Your task to perform on an android device: Open calendar and show me the third week of next month Image 0: 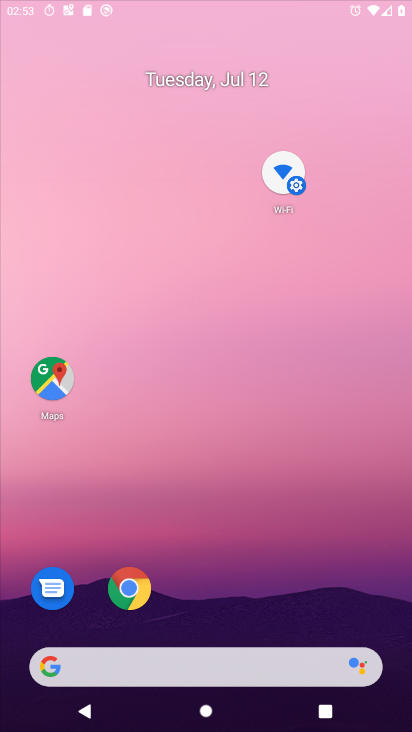
Step 0: click (301, 188)
Your task to perform on an android device: Open calendar and show me the third week of next month Image 1: 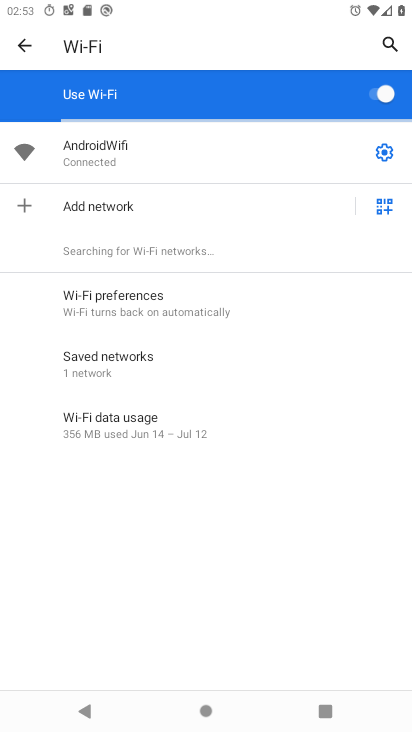
Step 1: drag from (278, 574) to (221, 309)
Your task to perform on an android device: Open calendar and show me the third week of next month Image 2: 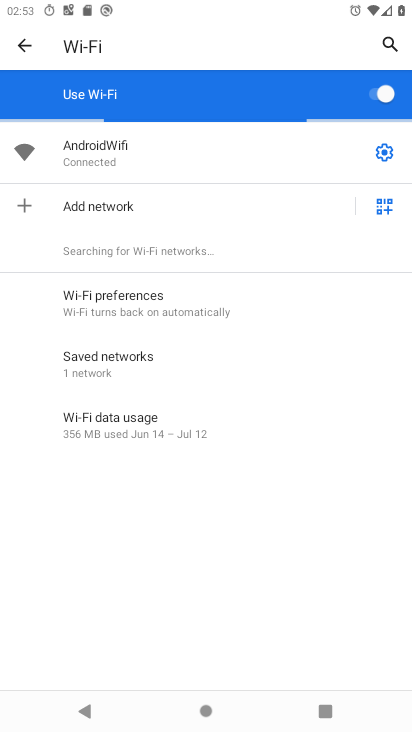
Step 2: drag from (277, 509) to (277, 320)
Your task to perform on an android device: Open calendar and show me the third week of next month Image 3: 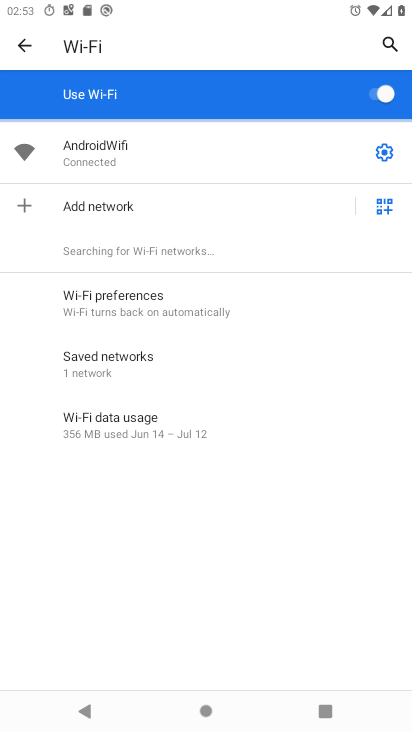
Step 3: press home button
Your task to perform on an android device: Open calendar and show me the third week of next month Image 4: 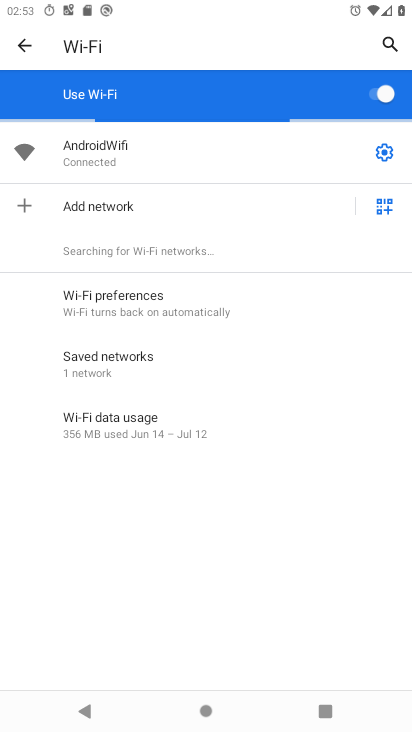
Step 4: drag from (136, 625) to (278, 120)
Your task to perform on an android device: Open calendar and show me the third week of next month Image 5: 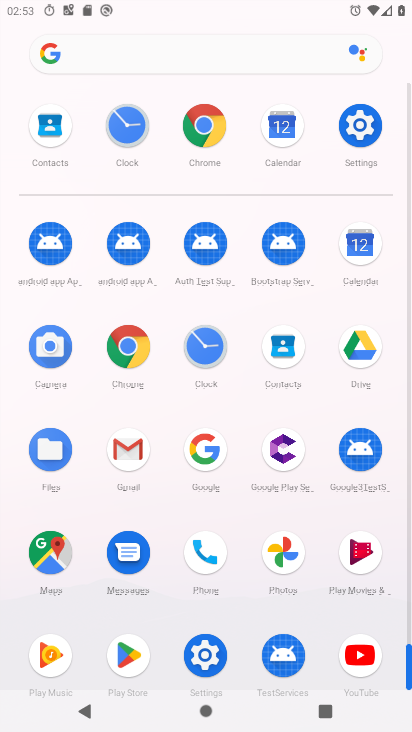
Step 5: click (359, 243)
Your task to perform on an android device: Open calendar and show me the third week of next month Image 6: 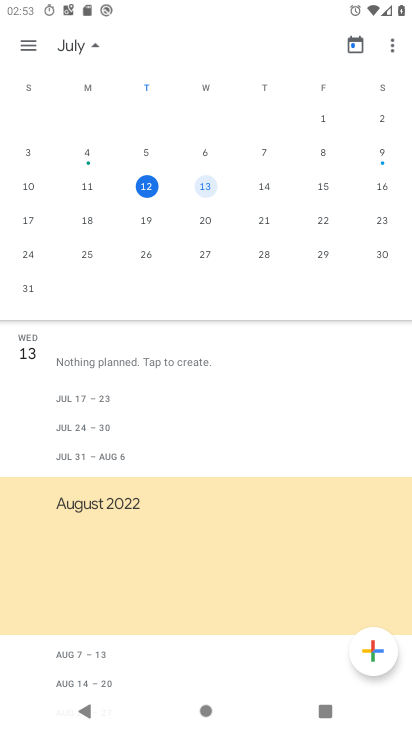
Step 6: drag from (341, 155) to (18, 216)
Your task to perform on an android device: Open calendar and show me the third week of next month Image 7: 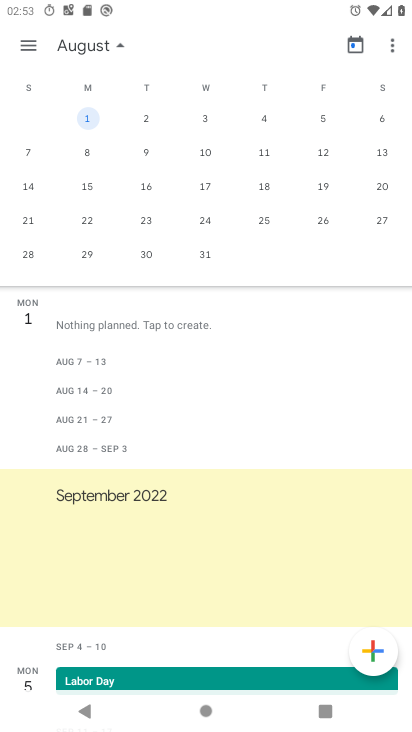
Step 7: click (324, 181)
Your task to perform on an android device: Open calendar and show me the third week of next month Image 8: 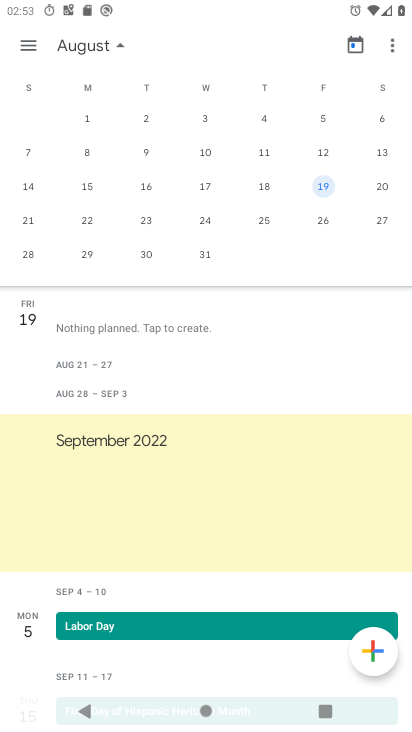
Step 8: task complete